Your task to perform on an android device: turn off location Image 0: 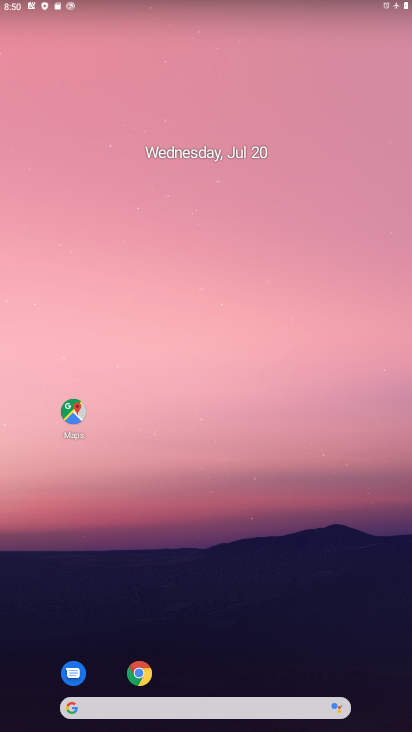
Step 0: drag from (233, 723) to (226, 202)
Your task to perform on an android device: turn off location Image 1: 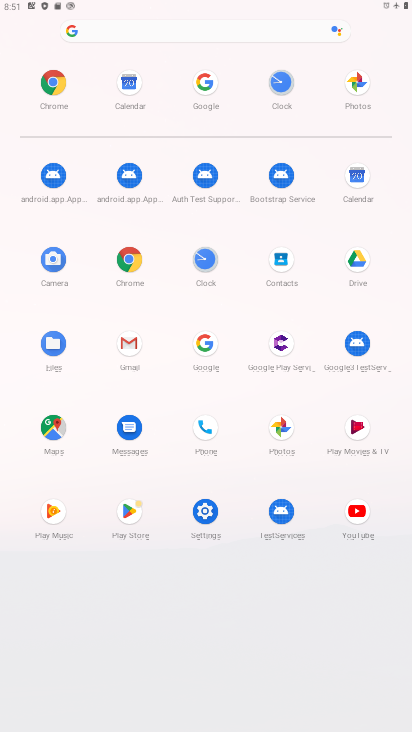
Step 1: click (204, 503)
Your task to perform on an android device: turn off location Image 2: 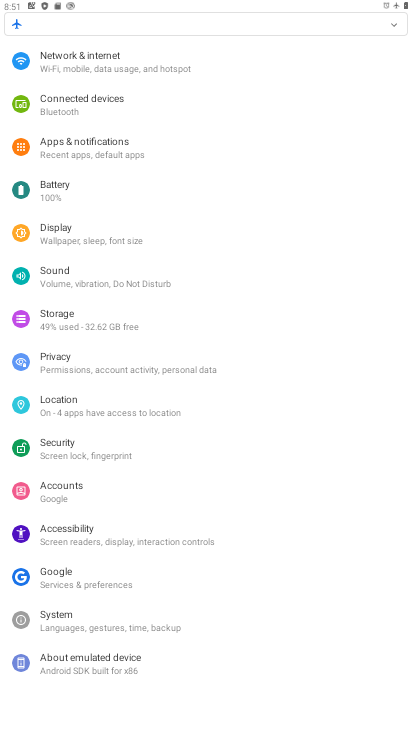
Step 2: click (110, 403)
Your task to perform on an android device: turn off location Image 3: 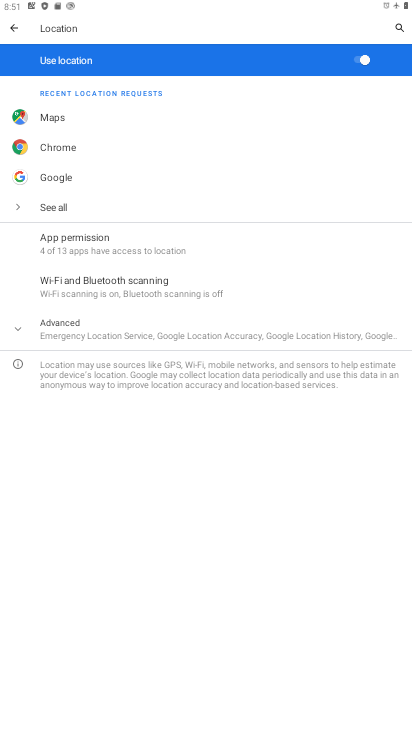
Step 3: click (357, 59)
Your task to perform on an android device: turn off location Image 4: 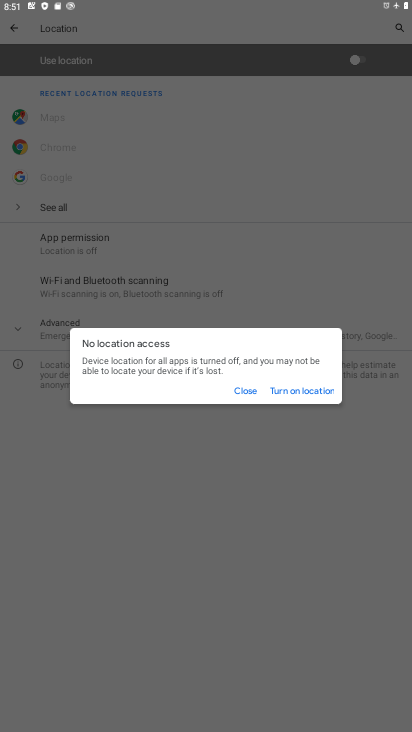
Step 4: click (248, 387)
Your task to perform on an android device: turn off location Image 5: 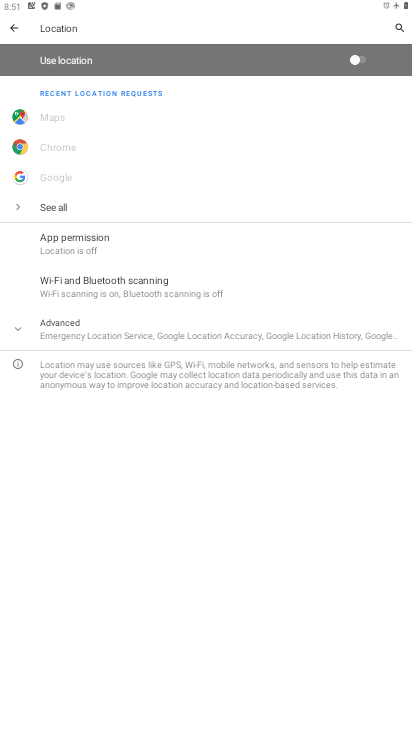
Step 5: task complete